Your task to perform on an android device: Open calendar and show me the fourth week of next month Image 0: 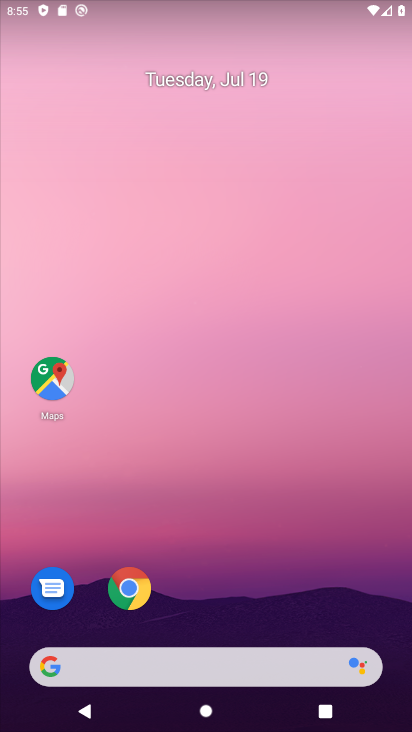
Step 0: drag from (208, 572) to (107, 57)
Your task to perform on an android device: Open calendar and show me the fourth week of next month Image 1: 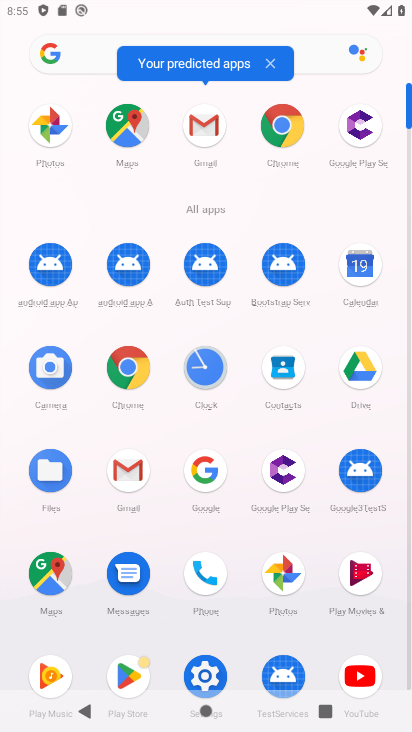
Step 1: click (360, 269)
Your task to perform on an android device: Open calendar and show me the fourth week of next month Image 2: 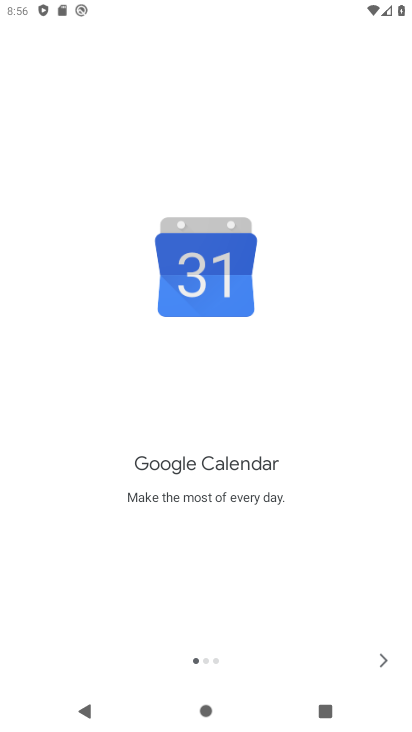
Step 2: click (378, 663)
Your task to perform on an android device: Open calendar and show me the fourth week of next month Image 3: 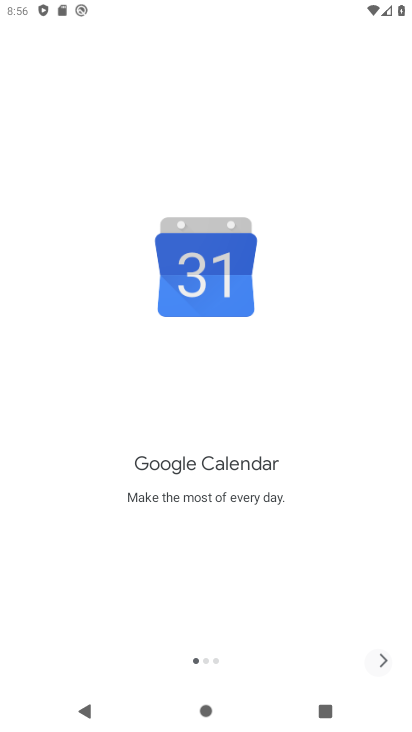
Step 3: click (378, 663)
Your task to perform on an android device: Open calendar and show me the fourth week of next month Image 4: 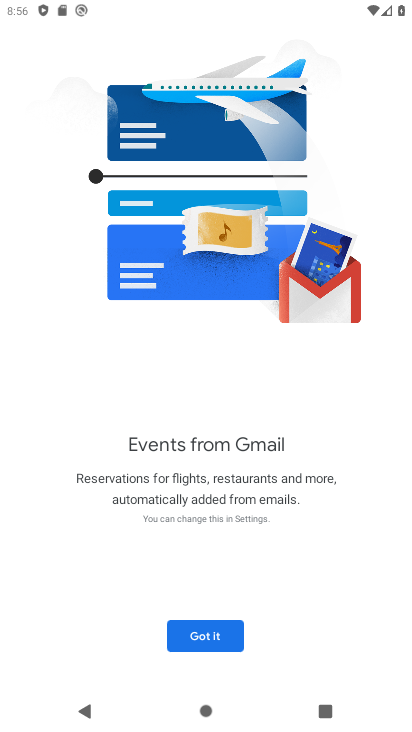
Step 4: click (231, 639)
Your task to perform on an android device: Open calendar and show me the fourth week of next month Image 5: 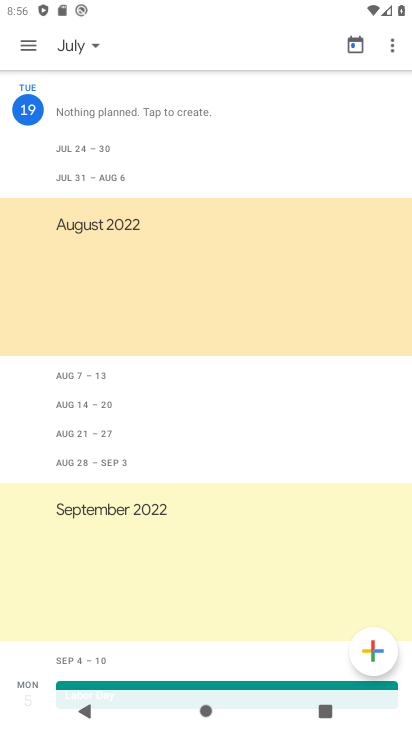
Step 5: click (28, 48)
Your task to perform on an android device: Open calendar and show me the fourth week of next month Image 6: 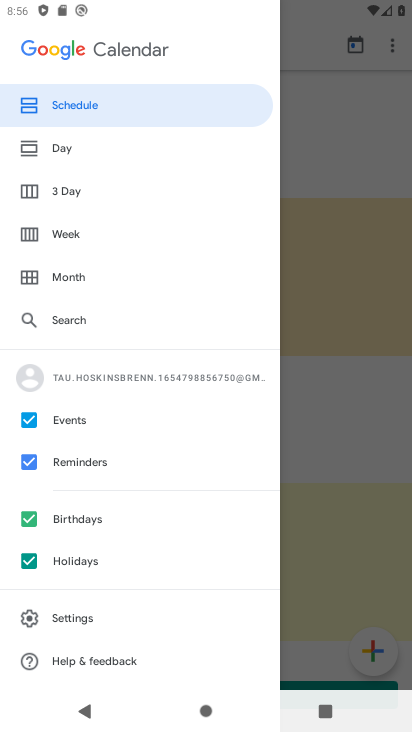
Step 6: click (73, 230)
Your task to perform on an android device: Open calendar and show me the fourth week of next month Image 7: 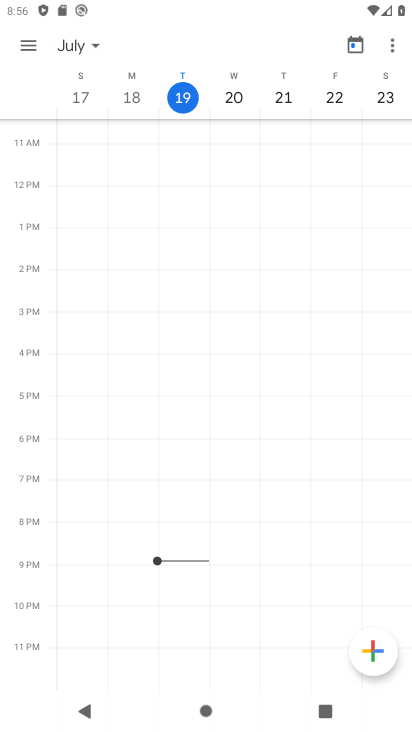
Step 7: click (99, 45)
Your task to perform on an android device: Open calendar and show me the fourth week of next month Image 8: 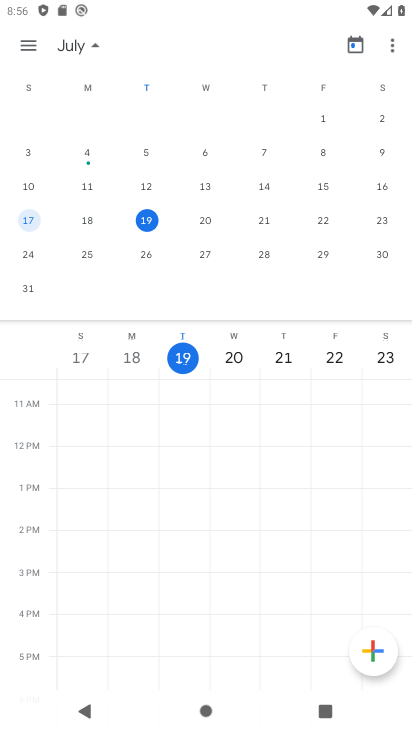
Step 8: drag from (378, 214) to (23, 208)
Your task to perform on an android device: Open calendar and show me the fourth week of next month Image 9: 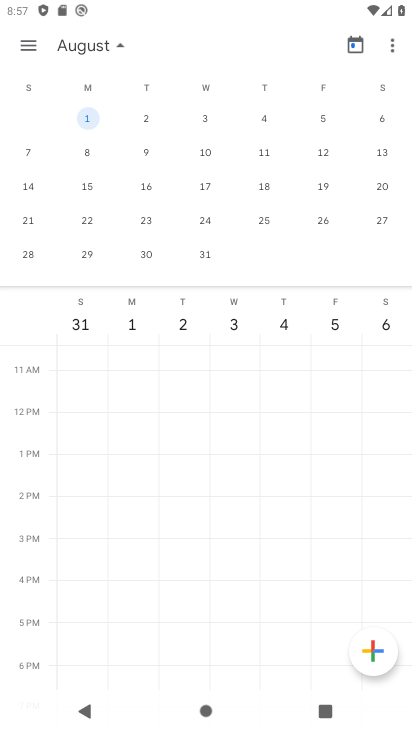
Step 9: click (86, 219)
Your task to perform on an android device: Open calendar and show me the fourth week of next month Image 10: 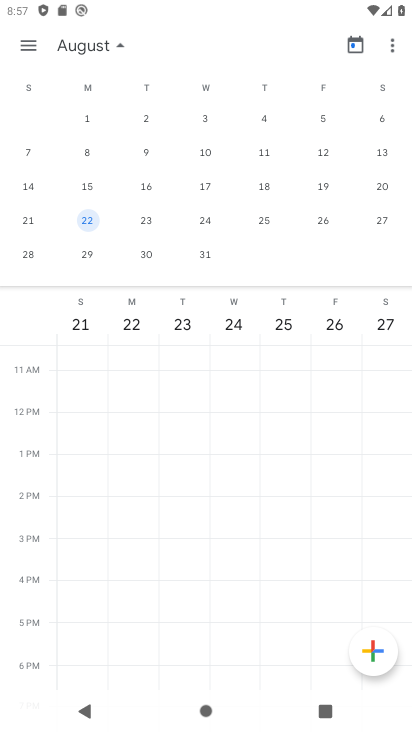
Step 10: task complete